Your task to perform on an android device: Search for Mexican restaurants on Maps Image 0: 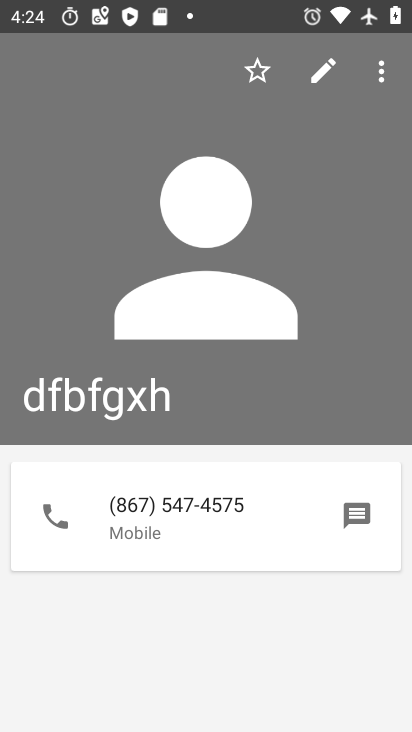
Step 0: press home button
Your task to perform on an android device: Search for Mexican restaurants on Maps Image 1: 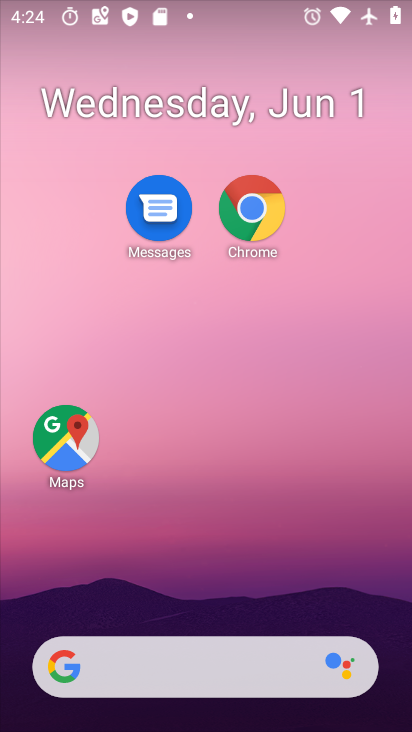
Step 1: click (71, 457)
Your task to perform on an android device: Search for Mexican restaurants on Maps Image 2: 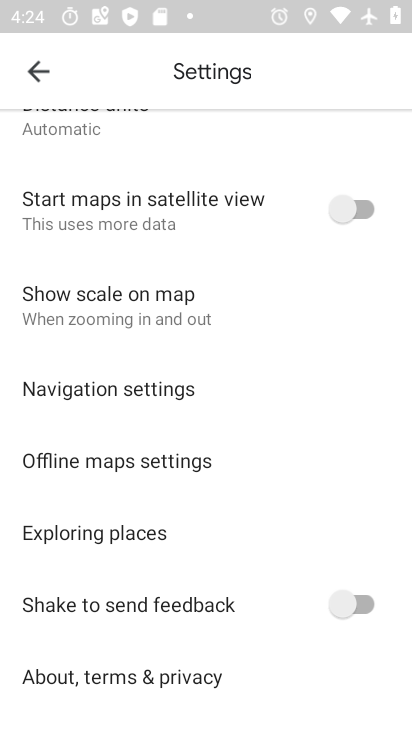
Step 2: press home button
Your task to perform on an android device: Search for Mexican restaurants on Maps Image 3: 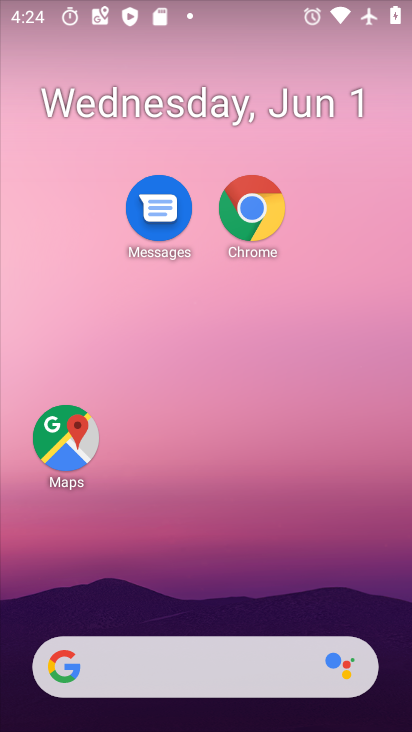
Step 3: click (60, 457)
Your task to perform on an android device: Search for Mexican restaurants on Maps Image 4: 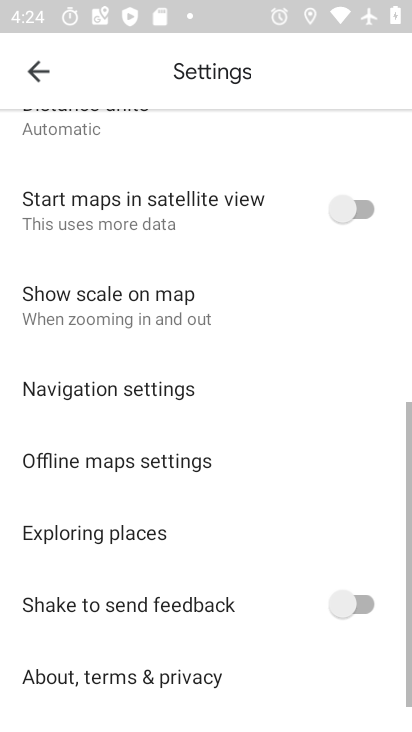
Step 4: click (38, 71)
Your task to perform on an android device: Search for Mexican restaurants on Maps Image 5: 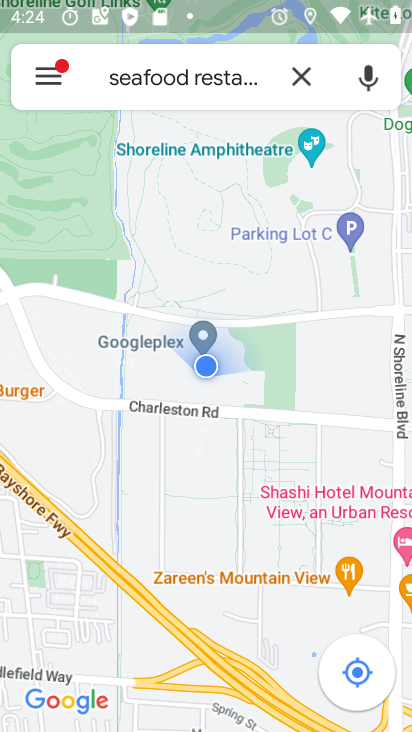
Step 5: click (309, 80)
Your task to perform on an android device: Search for Mexican restaurants on Maps Image 6: 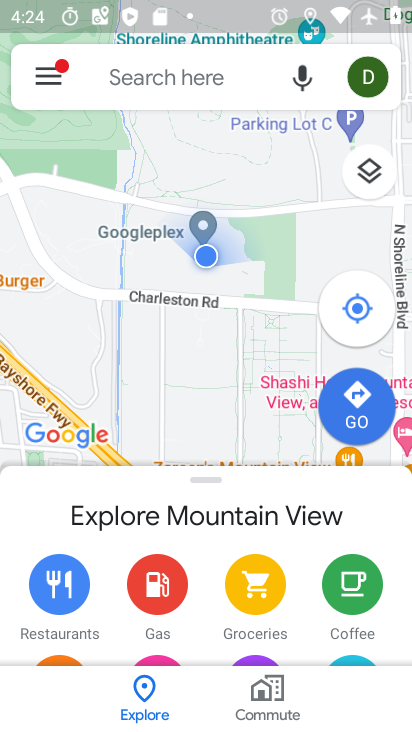
Step 6: click (180, 75)
Your task to perform on an android device: Search for Mexican restaurants on Maps Image 7: 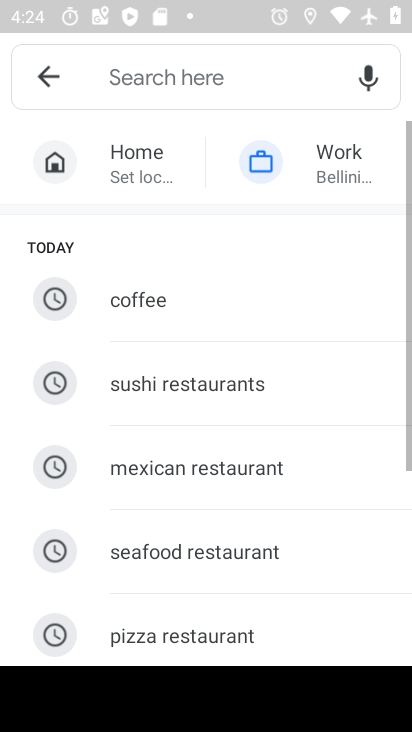
Step 7: click (182, 459)
Your task to perform on an android device: Search for Mexican restaurants on Maps Image 8: 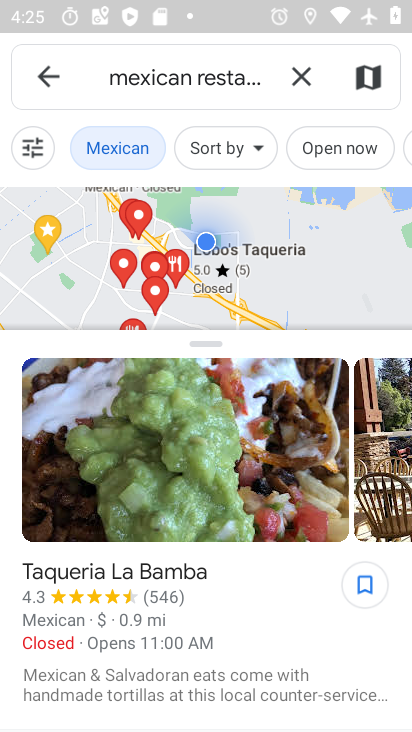
Step 8: task complete